Your task to perform on an android device: toggle sleep mode Image 0: 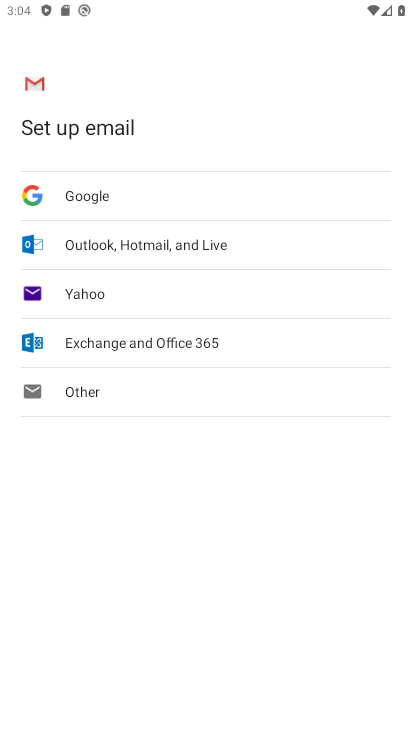
Step 0: press home button
Your task to perform on an android device: toggle sleep mode Image 1: 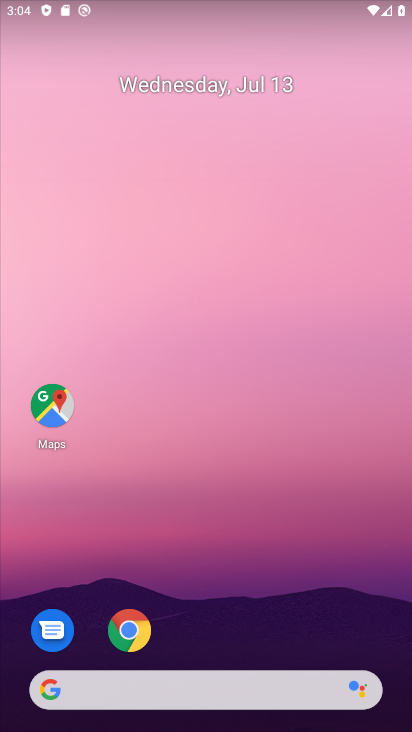
Step 1: drag from (225, 561) to (247, 23)
Your task to perform on an android device: toggle sleep mode Image 2: 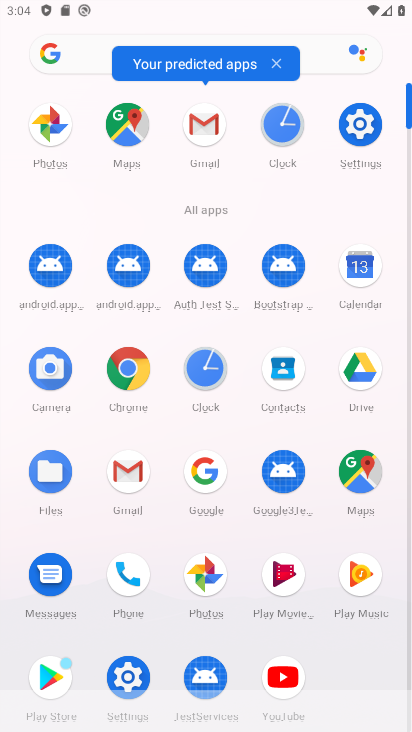
Step 2: click (363, 128)
Your task to perform on an android device: toggle sleep mode Image 3: 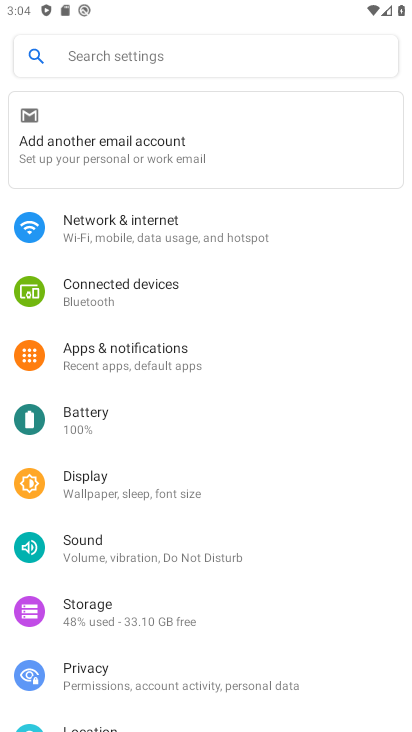
Step 3: click (115, 233)
Your task to perform on an android device: toggle sleep mode Image 4: 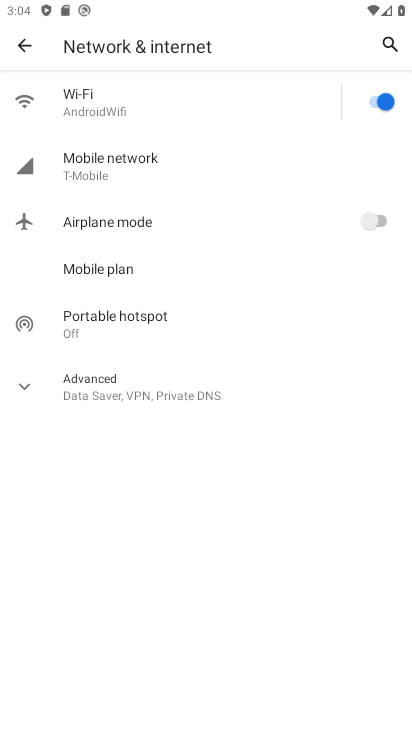
Step 4: click (22, 39)
Your task to perform on an android device: toggle sleep mode Image 5: 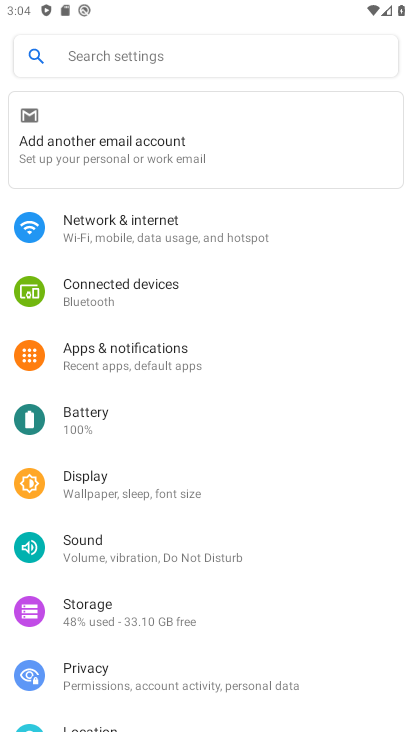
Step 5: click (78, 480)
Your task to perform on an android device: toggle sleep mode Image 6: 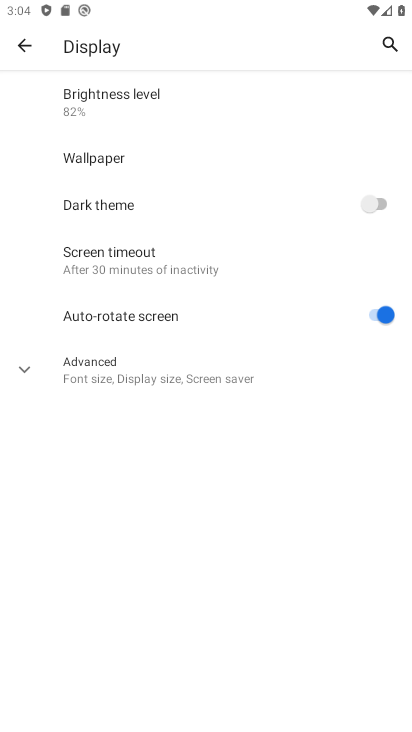
Step 6: task complete